Your task to perform on an android device: Go to settings Image 0: 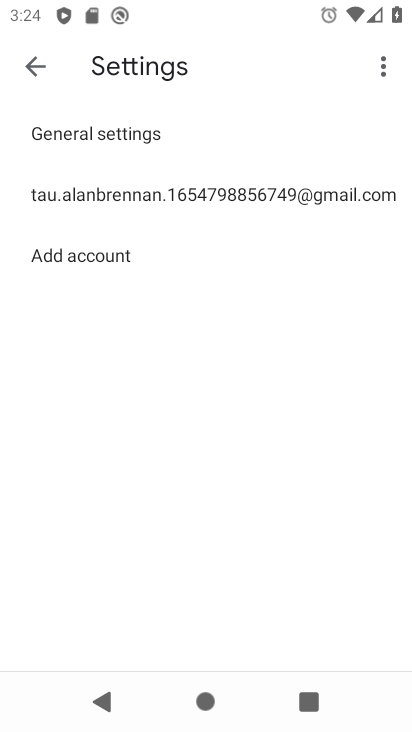
Step 0: press home button
Your task to perform on an android device: Go to settings Image 1: 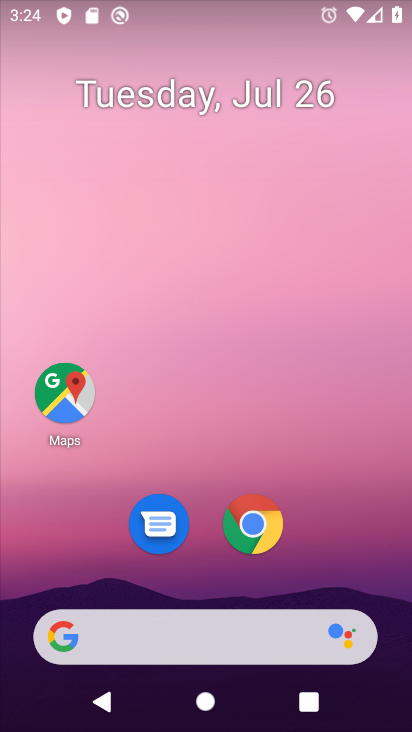
Step 1: drag from (339, 552) to (359, 80)
Your task to perform on an android device: Go to settings Image 2: 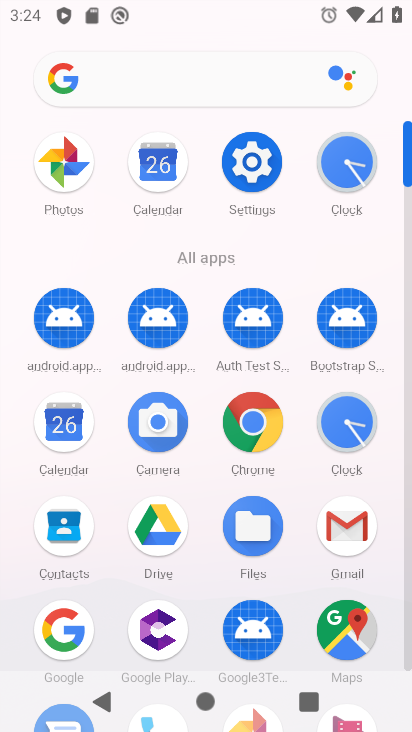
Step 2: click (259, 167)
Your task to perform on an android device: Go to settings Image 3: 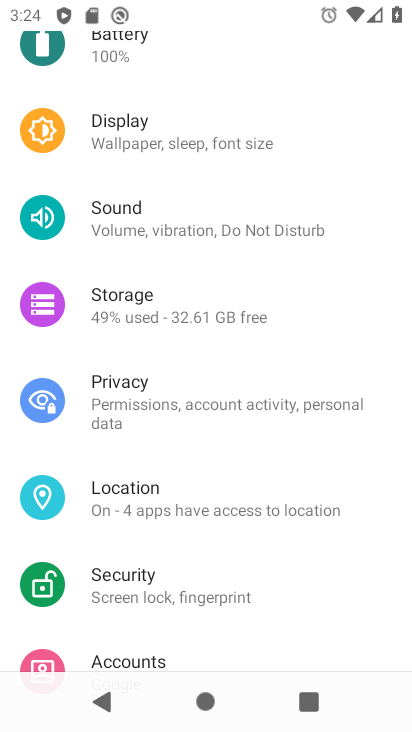
Step 3: task complete